Your task to perform on an android device: Go to ESPN.com Image 0: 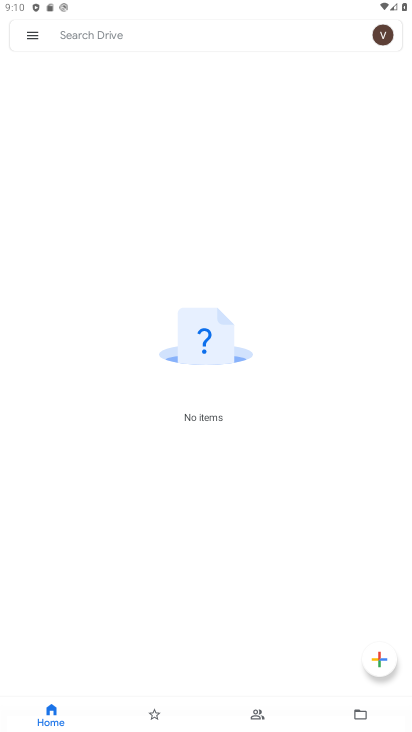
Step 0: press home button
Your task to perform on an android device: Go to ESPN.com Image 1: 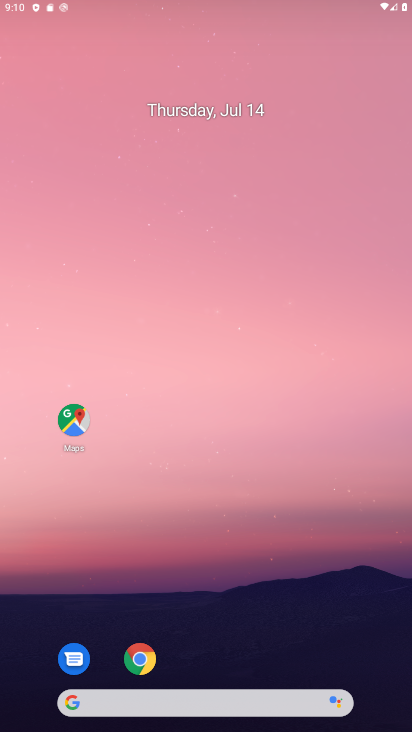
Step 1: drag from (281, 676) to (410, 55)
Your task to perform on an android device: Go to ESPN.com Image 2: 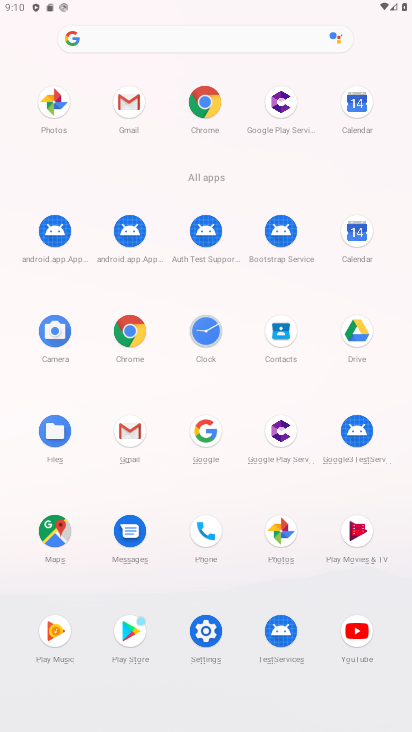
Step 2: click (138, 329)
Your task to perform on an android device: Go to ESPN.com Image 3: 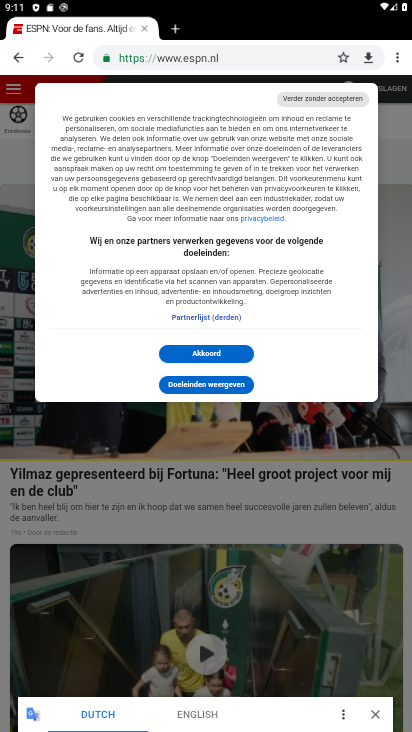
Step 3: task complete